Your task to perform on an android device: Open Chrome and go to the settings page Image 0: 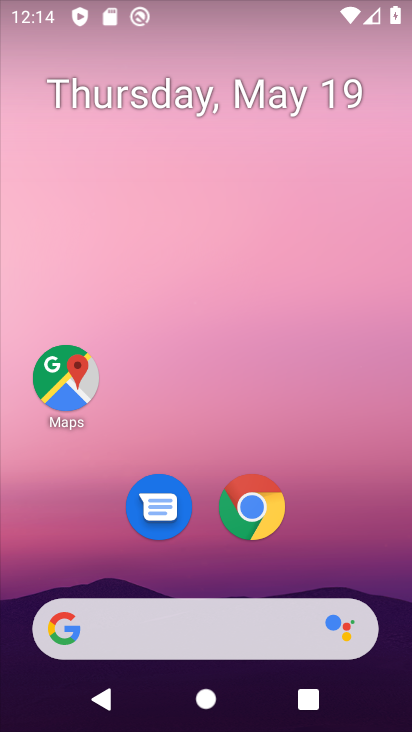
Step 0: click (246, 524)
Your task to perform on an android device: Open Chrome and go to the settings page Image 1: 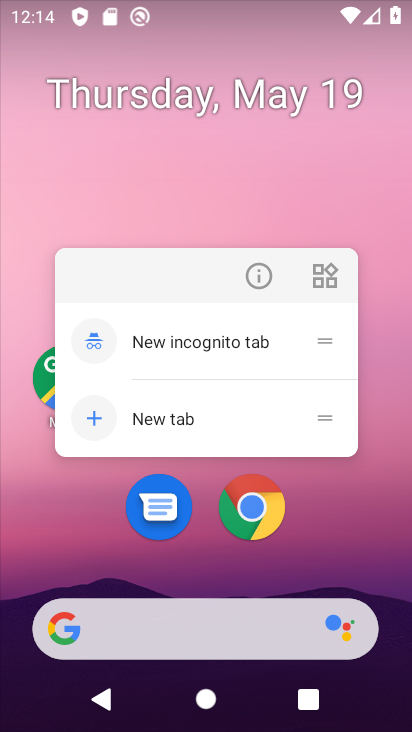
Step 1: click (260, 501)
Your task to perform on an android device: Open Chrome and go to the settings page Image 2: 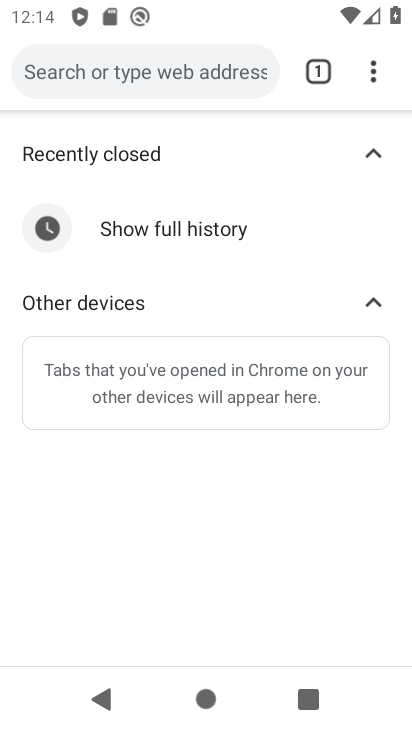
Step 2: click (378, 73)
Your task to perform on an android device: Open Chrome and go to the settings page Image 3: 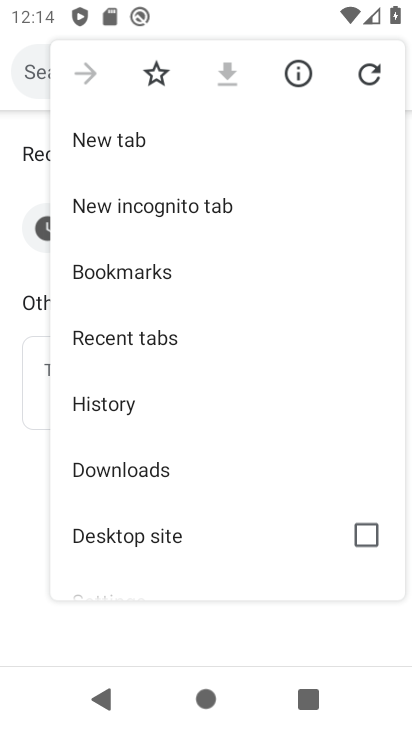
Step 3: drag from (113, 496) to (131, 299)
Your task to perform on an android device: Open Chrome and go to the settings page Image 4: 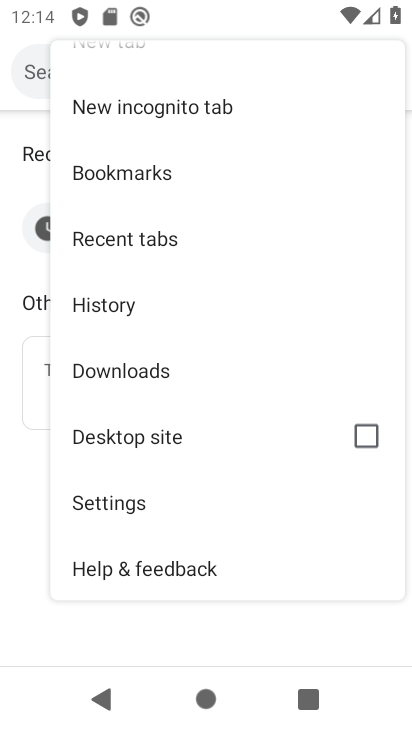
Step 4: click (123, 507)
Your task to perform on an android device: Open Chrome and go to the settings page Image 5: 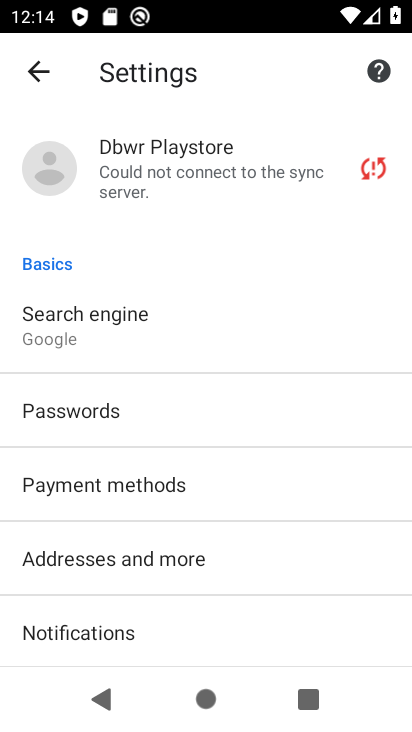
Step 5: task complete